Your task to perform on an android device: Open Google Image 0: 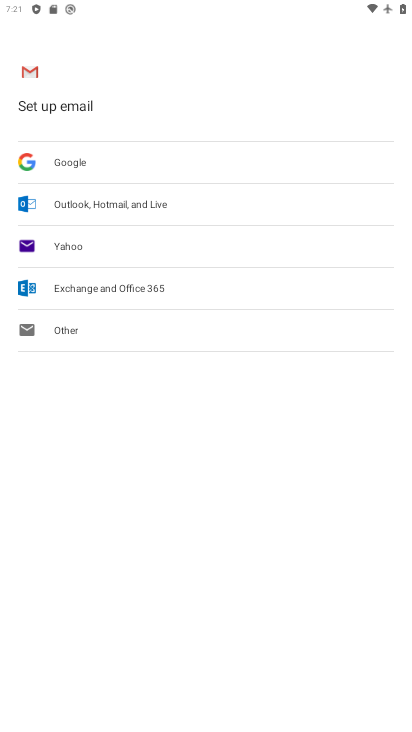
Step 0: press home button
Your task to perform on an android device: Open Google Image 1: 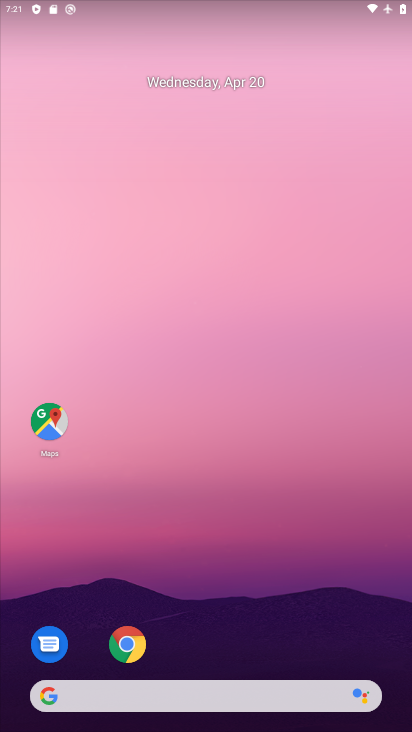
Step 1: drag from (323, 616) to (284, 63)
Your task to perform on an android device: Open Google Image 2: 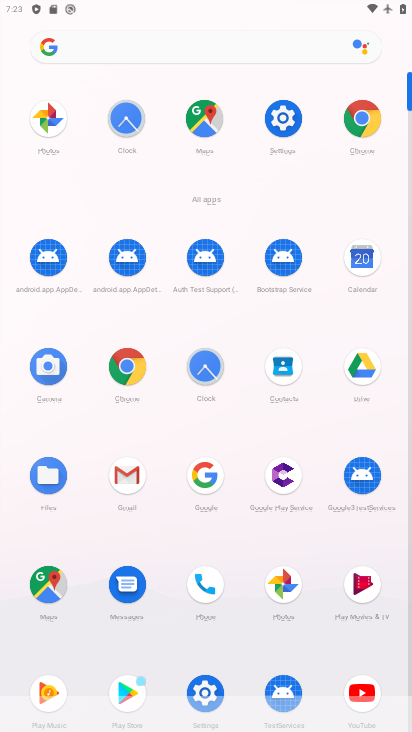
Step 2: click (199, 473)
Your task to perform on an android device: Open Google Image 3: 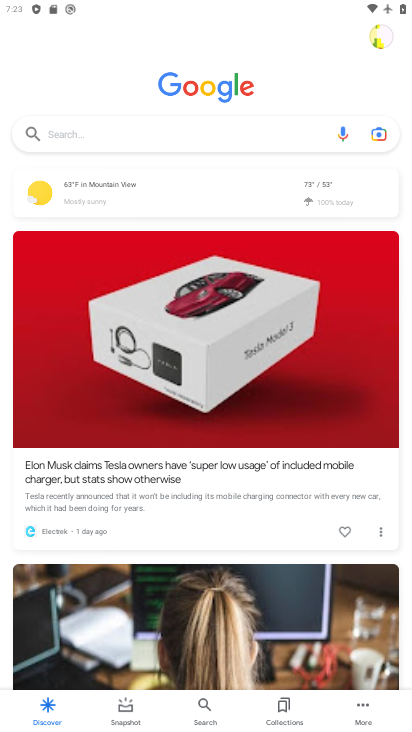
Step 3: task complete